Your task to perform on an android device: turn on translation in the chrome app Image 0: 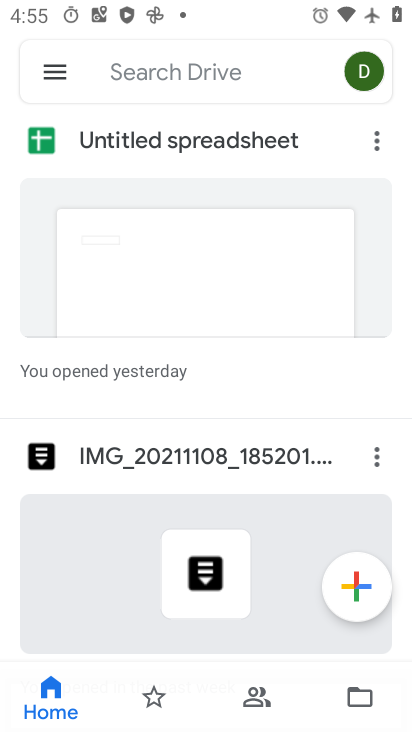
Step 0: press home button
Your task to perform on an android device: turn on translation in the chrome app Image 1: 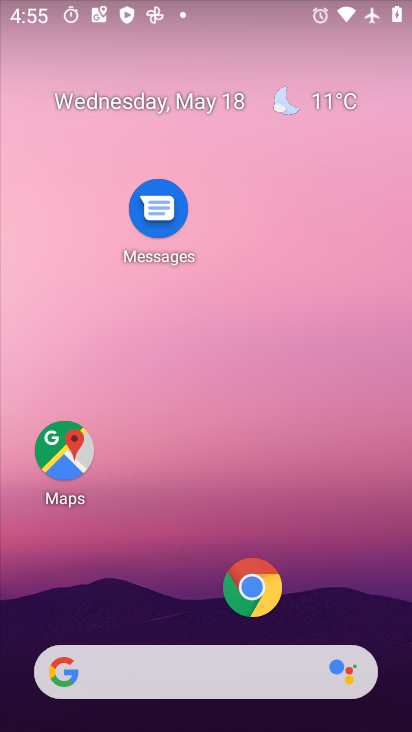
Step 1: click (261, 596)
Your task to perform on an android device: turn on translation in the chrome app Image 2: 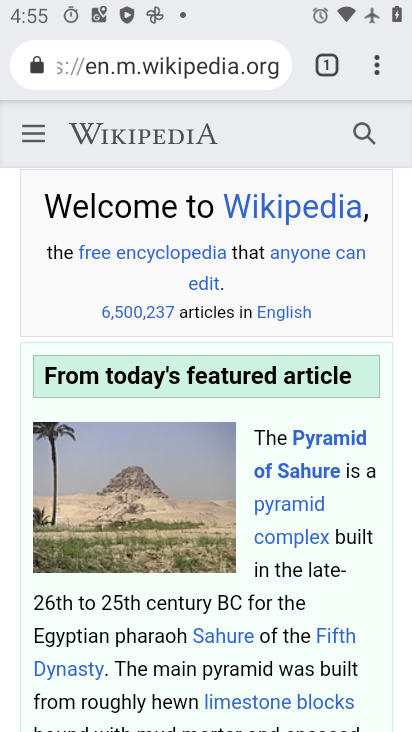
Step 2: click (380, 68)
Your task to perform on an android device: turn on translation in the chrome app Image 3: 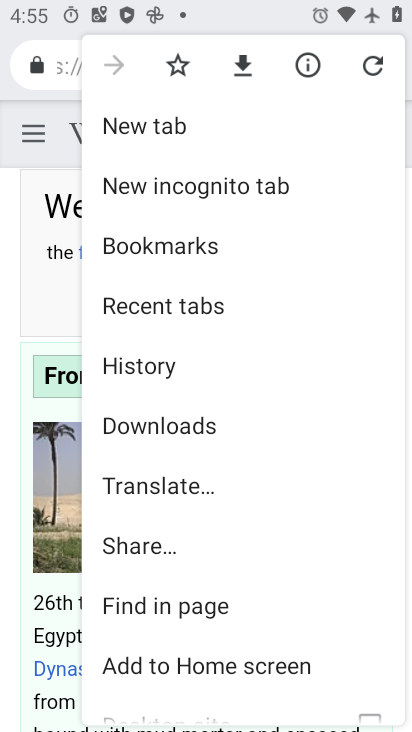
Step 3: click (237, 489)
Your task to perform on an android device: turn on translation in the chrome app Image 4: 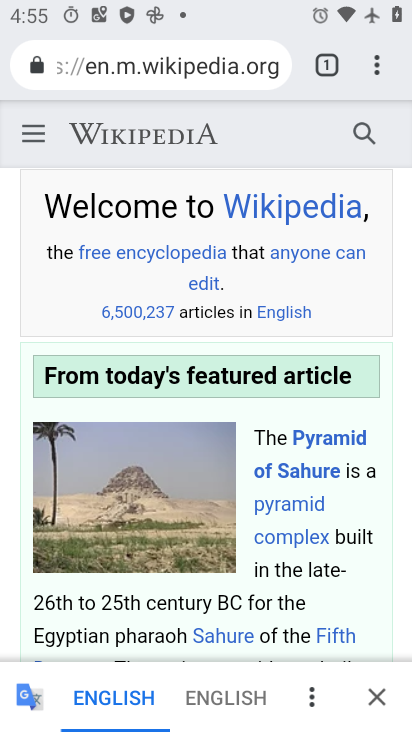
Step 4: click (312, 701)
Your task to perform on an android device: turn on translation in the chrome app Image 5: 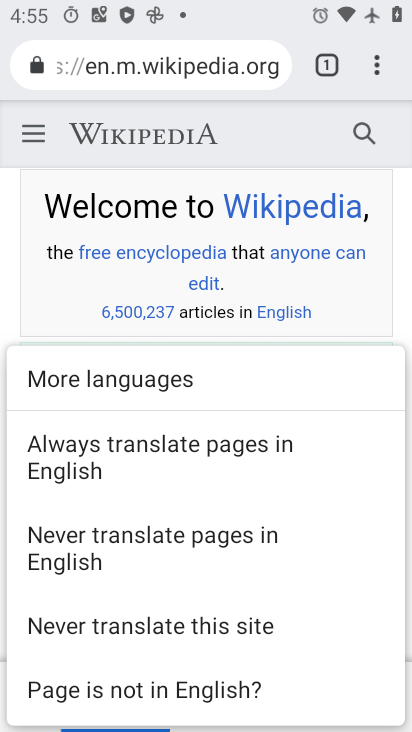
Step 5: click (199, 470)
Your task to perform on an android device: turn on translation in the chrome app Image 6: 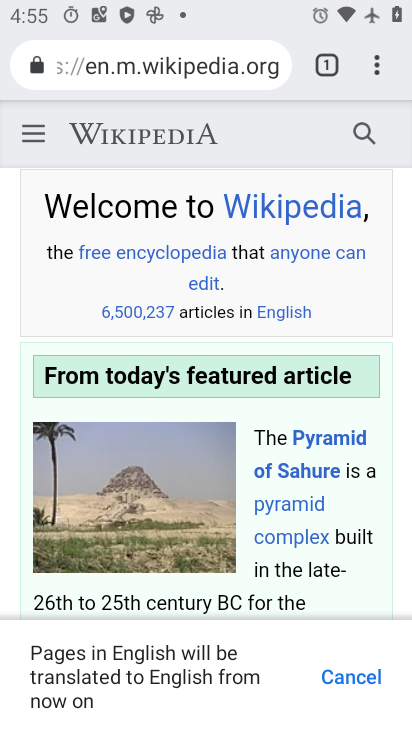
Step 6: task complete